Your task to perform on an android device: Show me recent news Image 0: 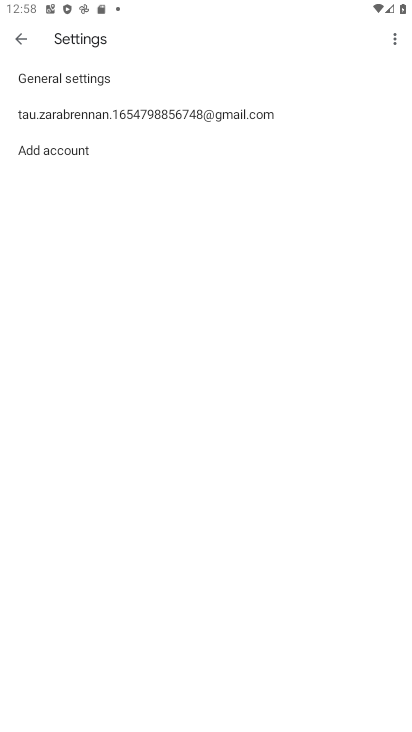
Step 0: press home button
Your task to perform on an android device: Show me recent news Image 1: 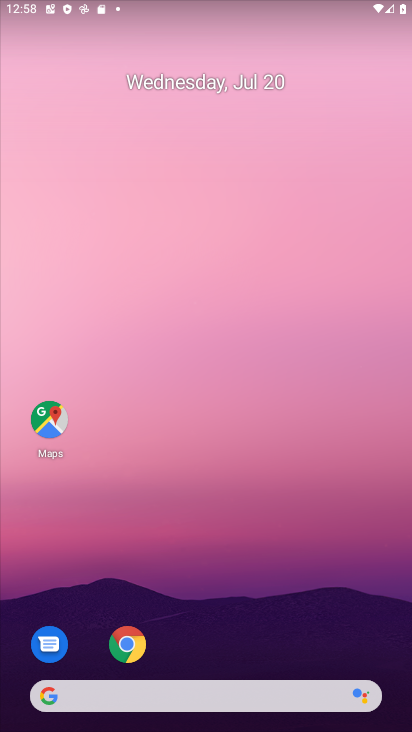
Step 1: click (118, 638)
Your task to perform on an android device: Show me recent news Image 2: 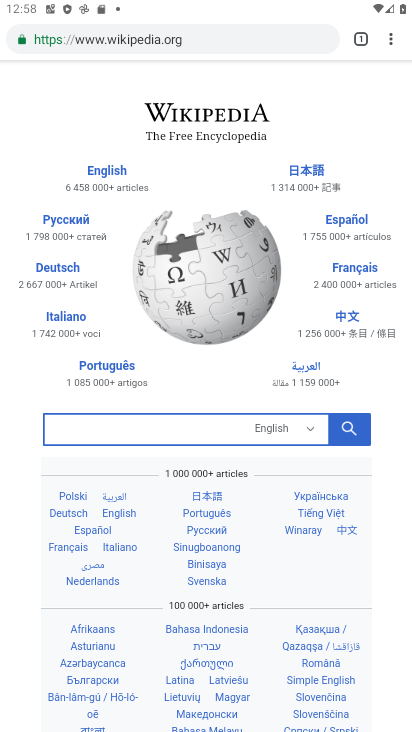
Step 2: click (188, 46)
Your task to perform on an android device: Show me recent news Image 3: 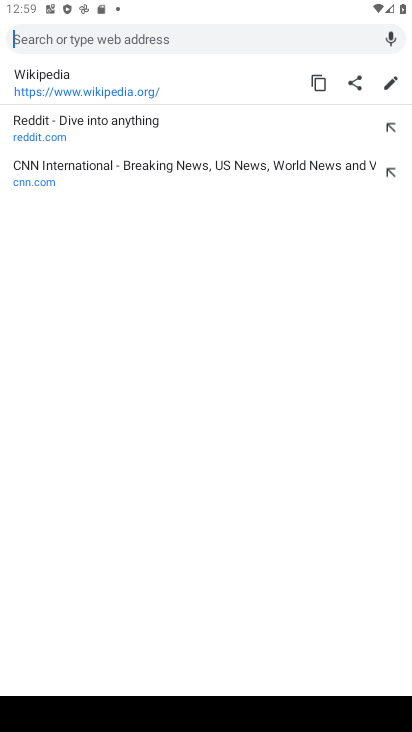
Step 3: type "Show me recent news"
Your task to perform on an android device: Show me recent news Image 4: 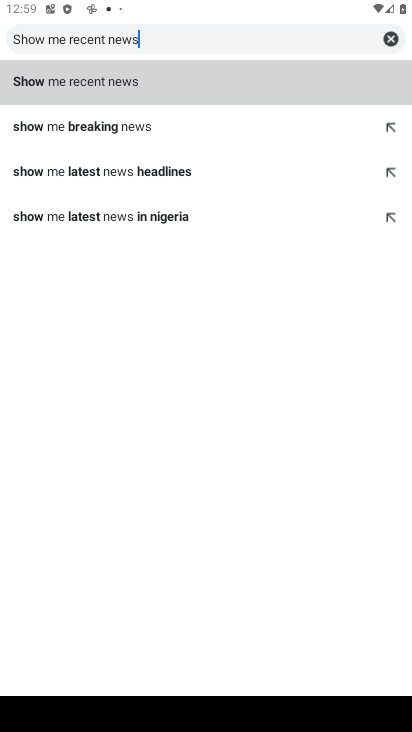
Step 4: type "Show me recent news"
Your task to perform on an android device: Show me recent news Image 5: 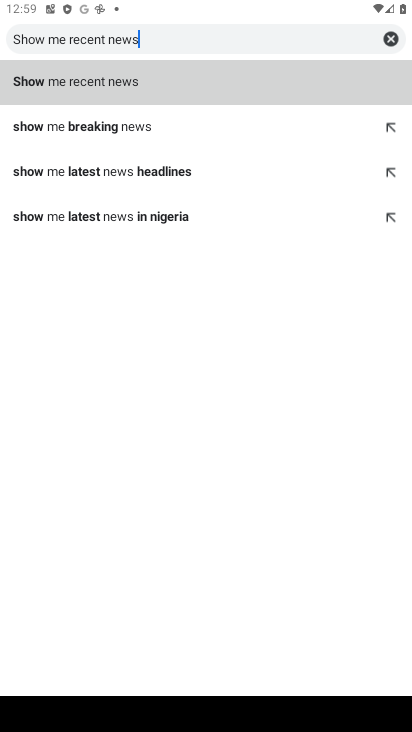
Step 5: click (196, 71)
Your task to perform on an android device: Show me recent news Image 6: 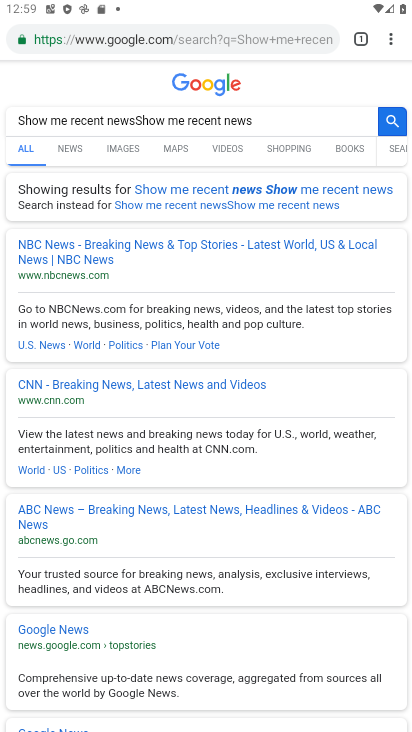
Step 6: task complete